Your task to perform on an android device: Search for a nice rug on Crate & Barrel Image 0: 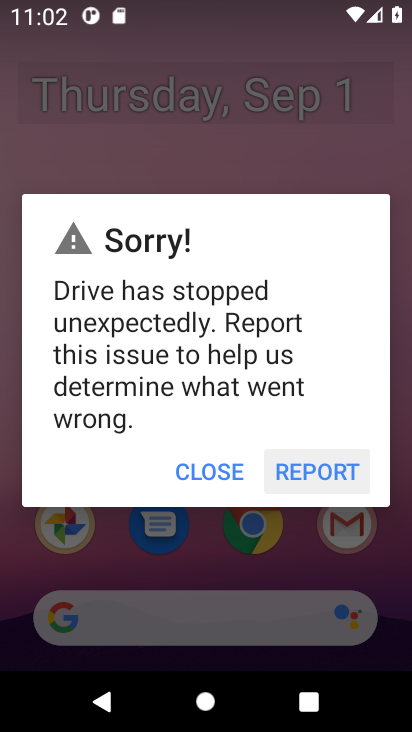
Step 0: press home button
Your task to perform on an android device: Search for a nice rug on Crate & Barrel Image 1: 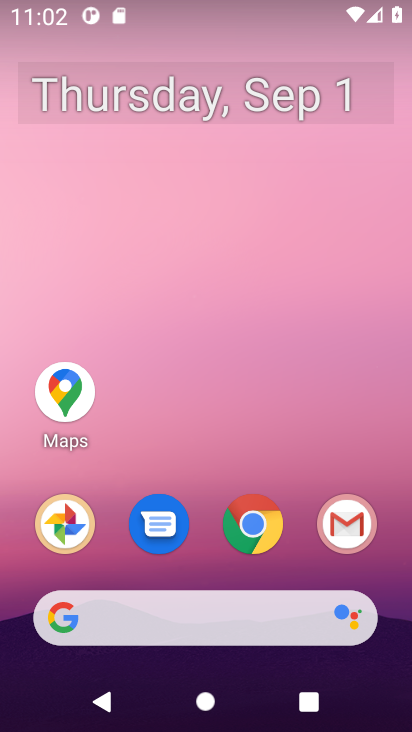
Step 1: click (217, 614)
Your task to perform on an android device: Search for a nice rug on Crate & Barrel Image 2: 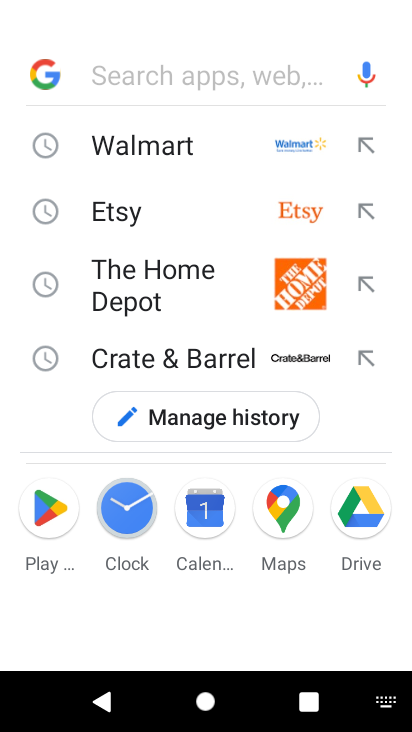
Step 2: press enter
Your task to perform on an android device: Search for a nice rug on Crate & Barrel Image 3: 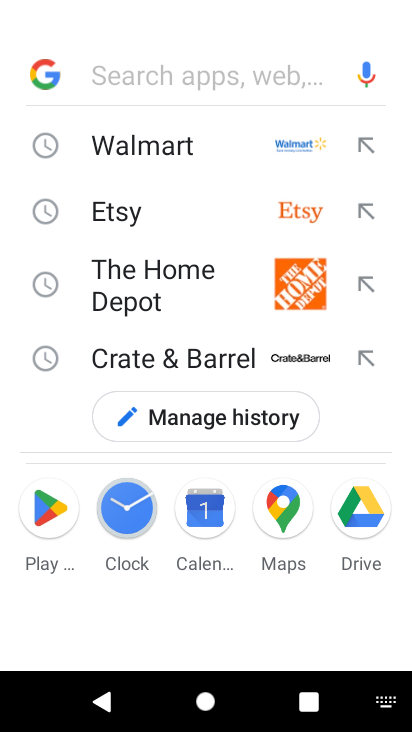
Step 3: type "crate barrel"
Your task to perform on an android device: Search for a nice rug on Crate & Barrel Image 4: 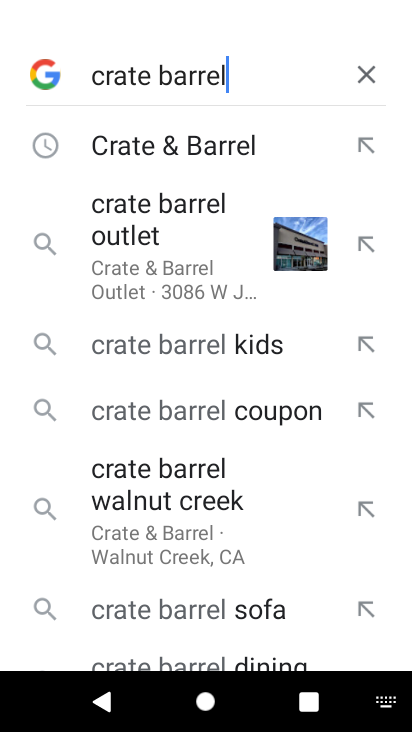
Step 4: click (180, 143)
Your task to perform on an android device: Search for a nice rug on Crate & Barrel Image 5: 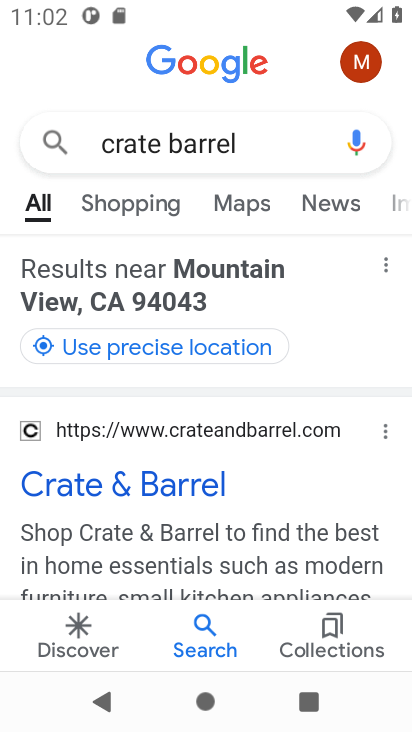
Step 5: click (173, 485)
Your task to perform on an android device: Search for a nice rug on Crate & Barrel Image 6: 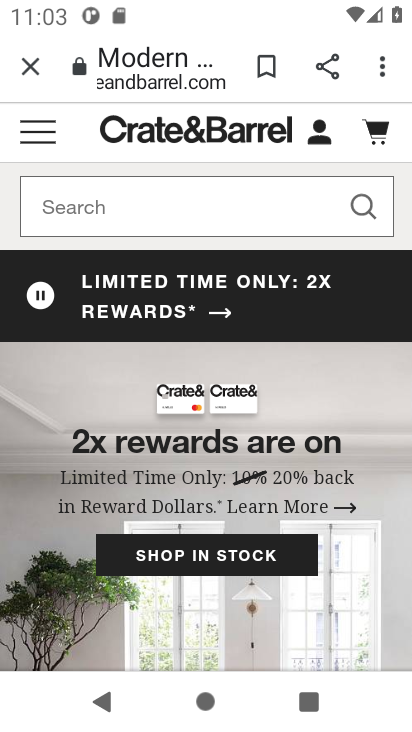
Step 6: click (244, 201)
Your task to perform on an android device: Search for a nice rug on Crate & Barrel Image 7: 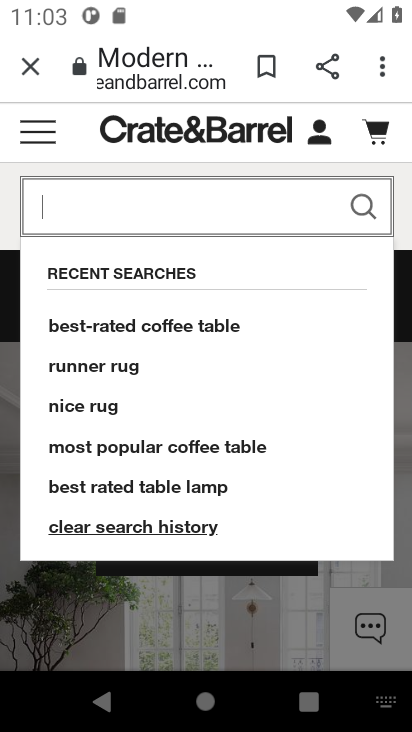
Step 7: click (68, 400)
Your task to perform on an android device: Search for a nice rug on Crate & Barrel Image 8: 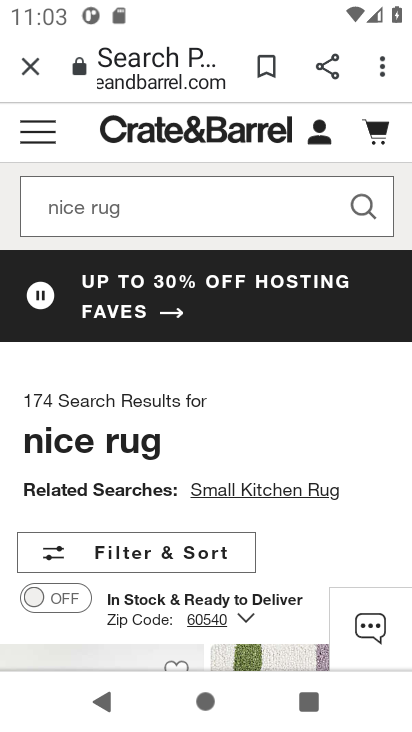
Step 8: task complete